Your task to perform on an android device: Show me the alarms in the clock app Image 0: 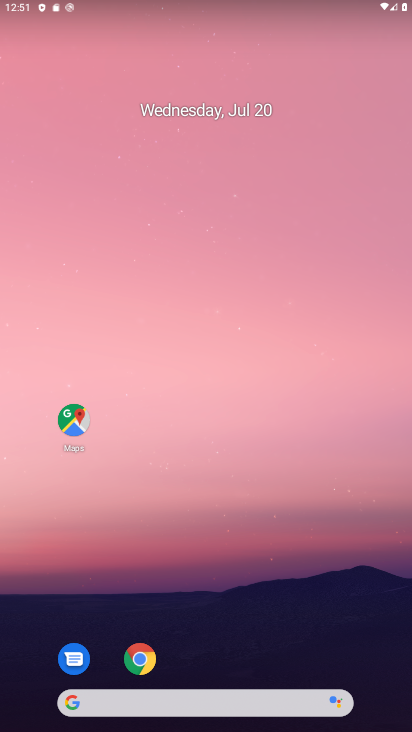
Step 0: drag from (282, 640) to (328, 87)
Your task to perform on an android device: Show me the alarms in the clock app Image 1: 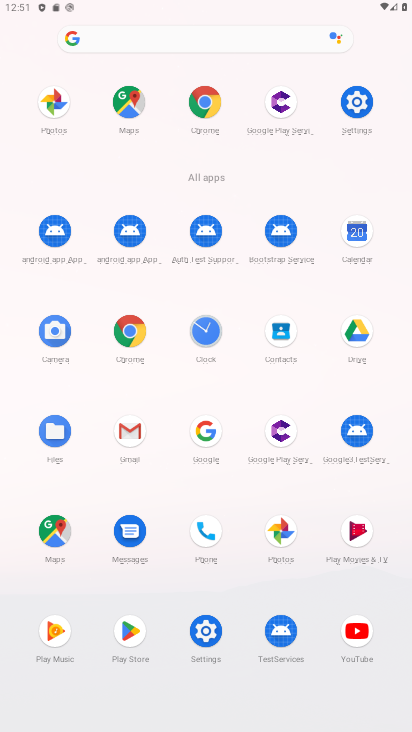
Step 1: click (211, 317)
Your task to perform on an android device: Show me the alarms in the clock app Image 2: 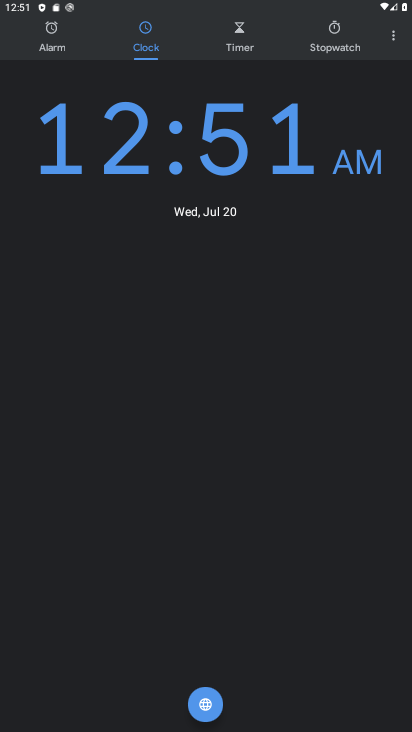
Step 2: click (211, 323)
Your task to perform on an android device: Show me the alarms in the clock app Image 3: 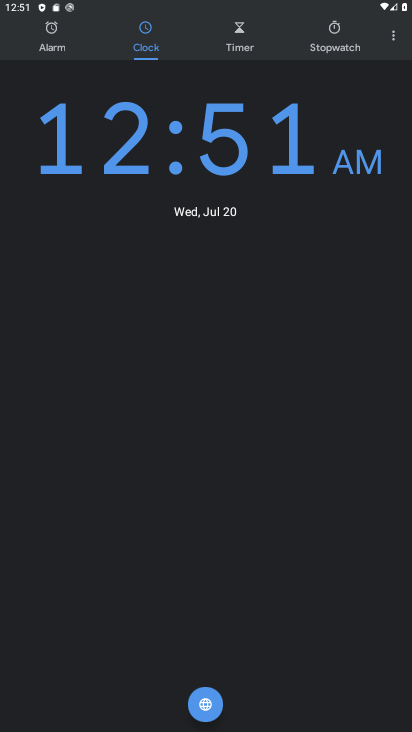
Step 3: click (76, 35)
Your task to perform on an android device: Show me the alarms in the clock app Image 4: 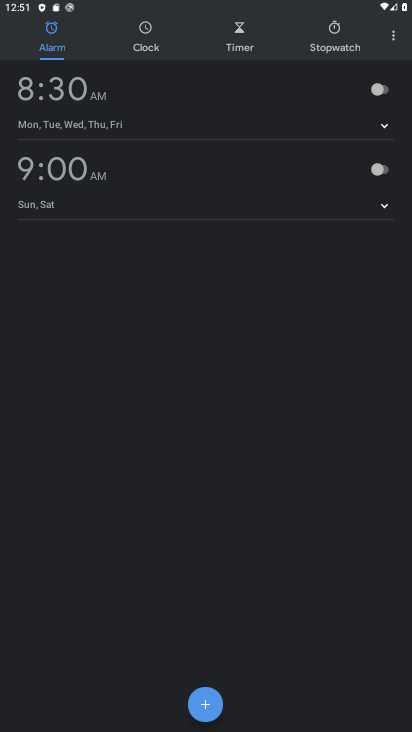
Step 4: click (75, 34)
Your task to perform on an android device: Show me the alarms in the clock app Image 5: 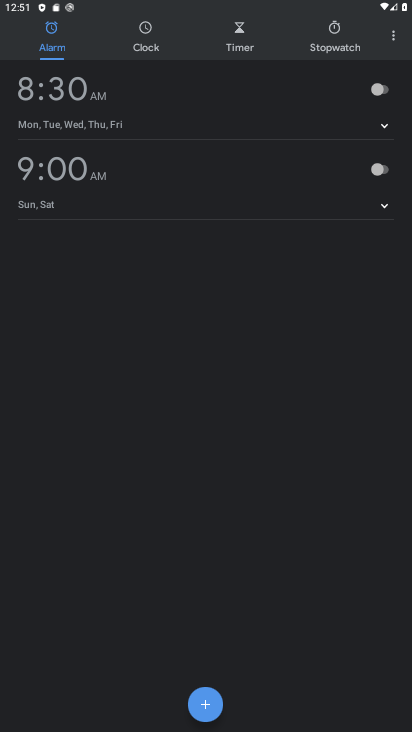
Step 5: task complete